Your task to perform on an android device: turn on data saver in the chrome app Image 0: 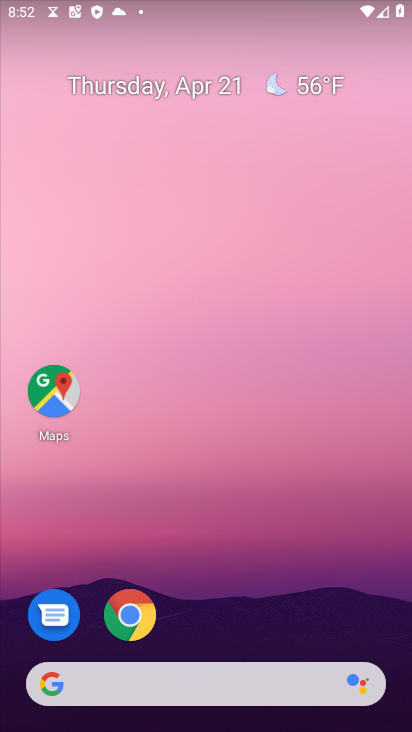
Step 0: click (133, 598)
Your task to perform on an android device: turn on data saver in the chrome app Image 1: 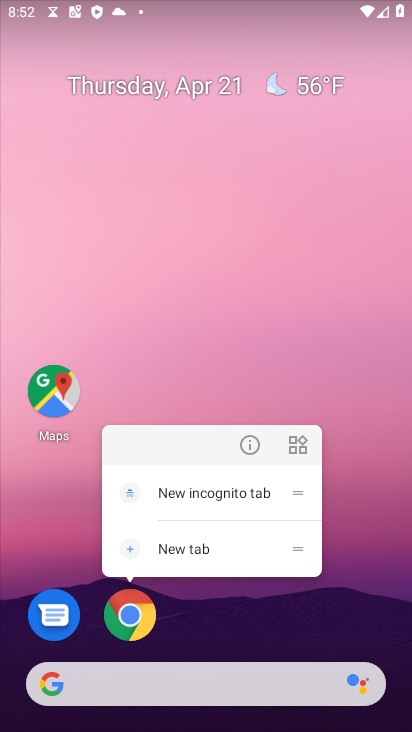
Step 1: click (121, 623)
Your task to perform on an android device: turn on data saver in the chrome app Image 2: 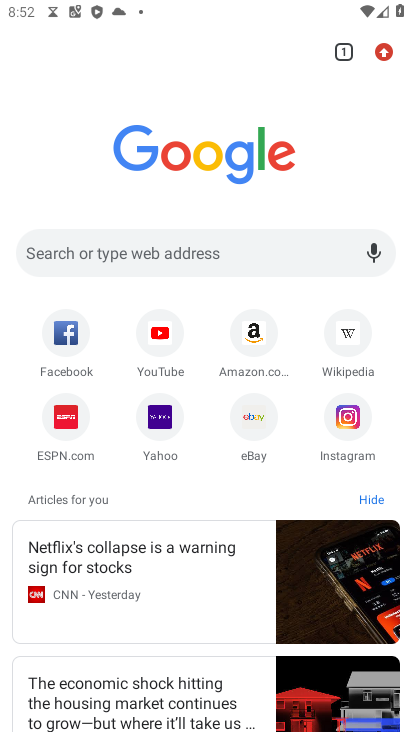
Step 2: drag from (153, 664) to (220, 209)
Your task to perform on an android device: turn on data saver in the chrome app Image 3: 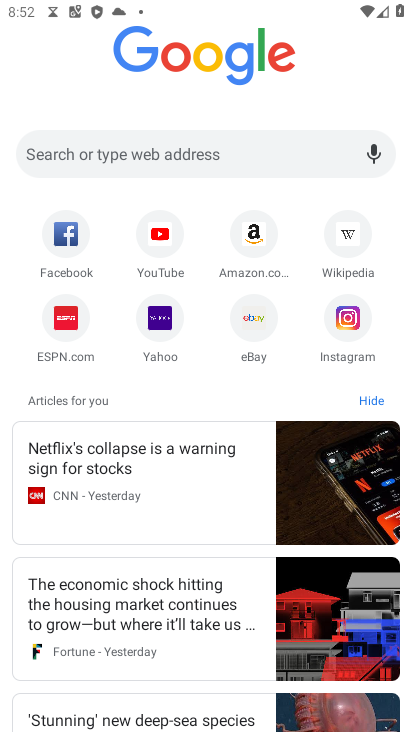
Step 3: drag from (173, 652) to (235, 342)
Your task to perform on an android device: turn on data saver in the chrome app Image 4: 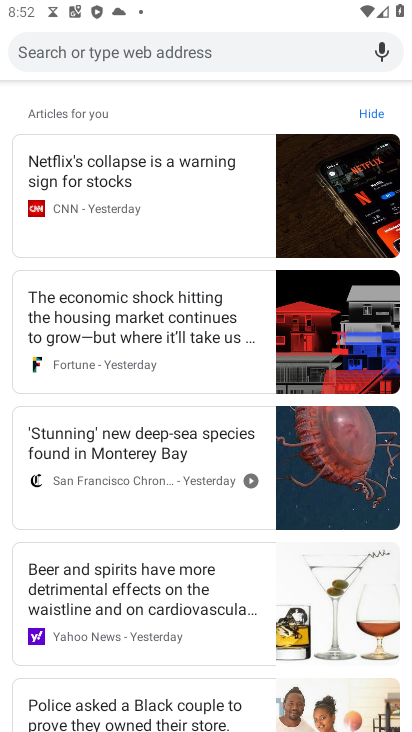
Step 4: drag from (88, 445) to (72, 621)
Your task to perform on an android device: turn on data saver in the chrome app Image 5: 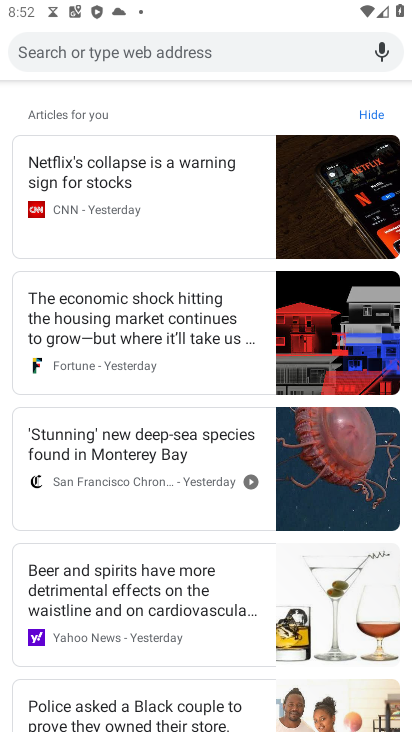
Step 5: drag from (190, 205) to (123, 637)
Your task to perform on an android device: turn on data saver in the chrome app Image 6: 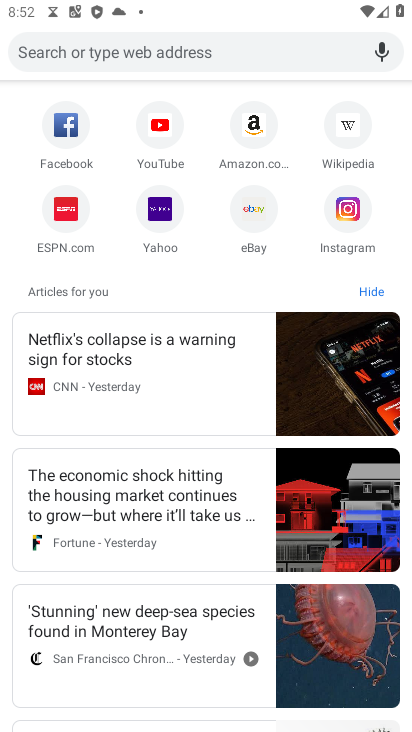
Step 6: drag from (222, 347) to (184, 625)
Your task to perform on an android device: turn on data saver in the chrome app Image 7: 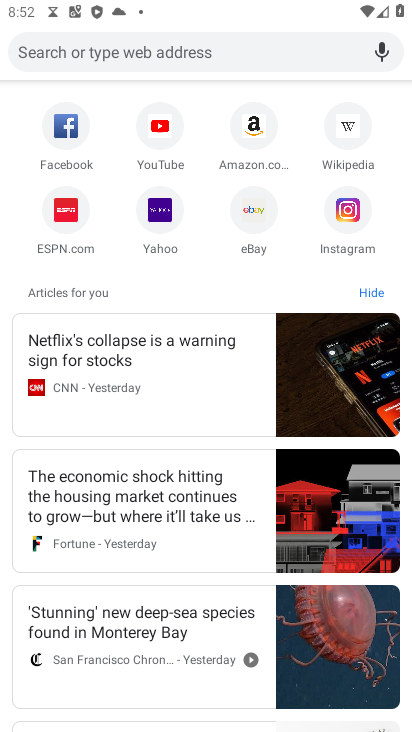
Step 7: drag from (298, 225) to (210, 594)
Your task to perform on an android device: turn on data saver in the chrome app Image 8: 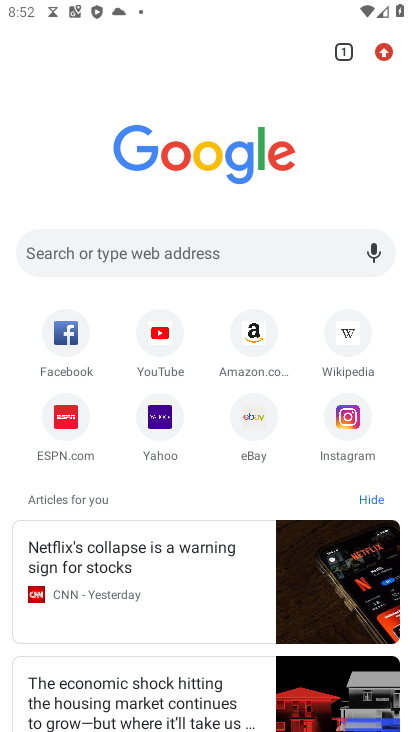
Step 8: click (387, 55)
Your task to perform on an android device: turn on data saver in the chrome app Image 9: 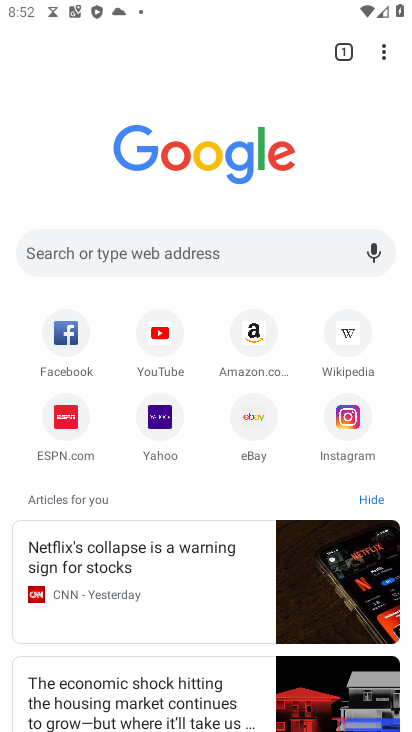
Step 9: click (385, 57)
Your task to perform on an android device: turn on data saver in the chrome app Image 10: 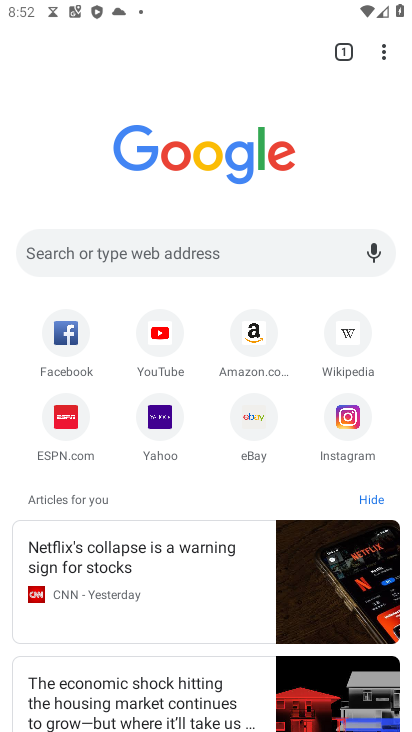
Step 10: click (386, 58)
Your task to perform on an android device: turn on data saver in the chrome app Image 11: 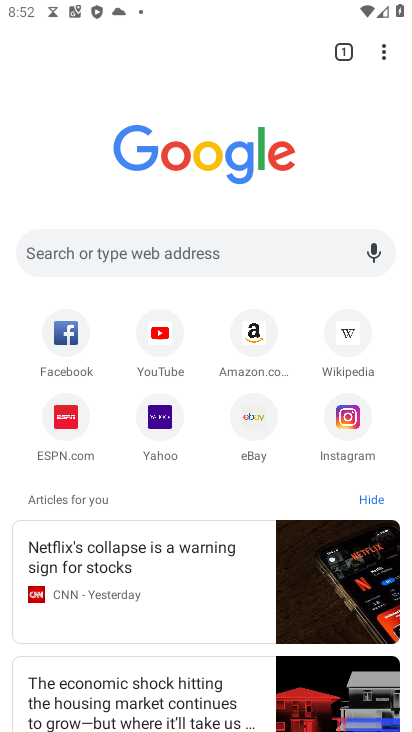
Step 11: click (380, 57)
Your task to perform on an android device: turn on data saver in the chrome app Image 12: 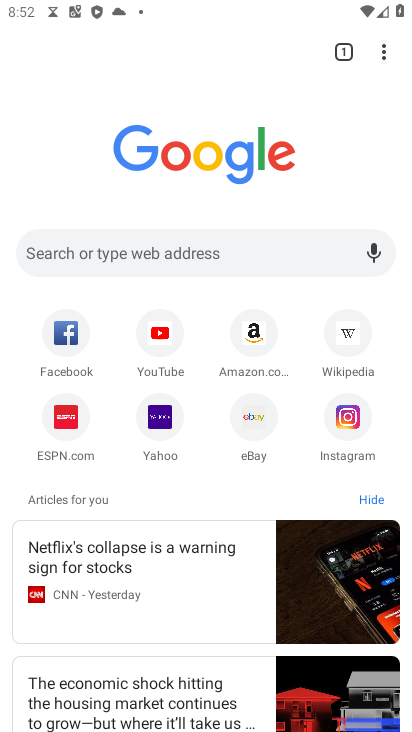
Step 12: click (383, 55)
Your task to perform on an android device: turn on data saver in the chrome app Image 13: 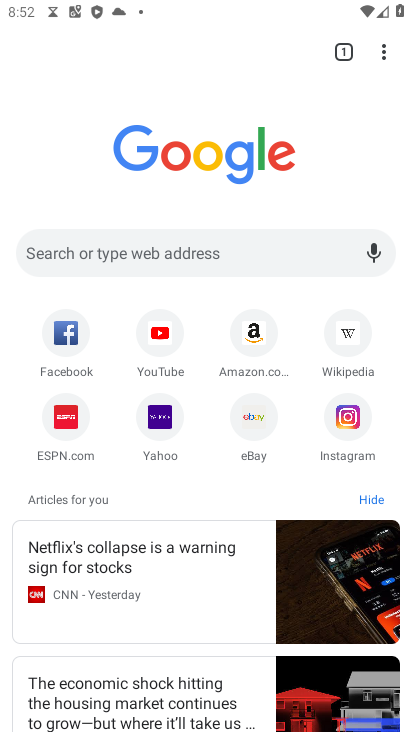
Step 13: click (386, 53)
Your task to perform on an android device: turn on data saver in the chrome app Image 14: 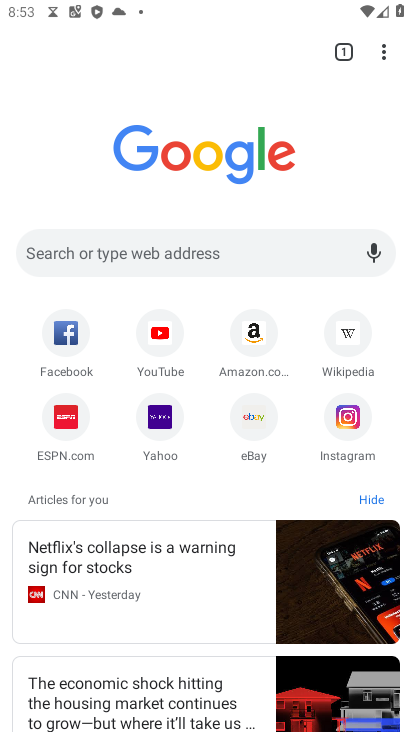
Step 14: click (384, 55)
Your task to perform on an android device: turn on data saver in the chrome app Image 15: 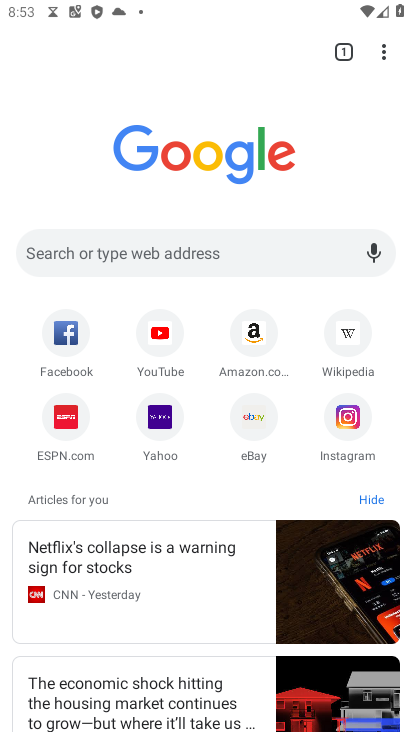
Step 15: click (384, 52)
Your task to perform on an android device: turn on data saver in the chrome app Image 16: 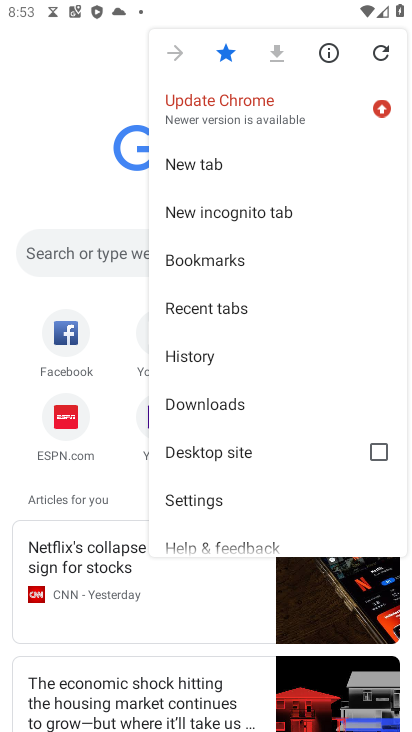
Step 16: drag from (255, 494) to (268, 211)
Your task to perform on an android device: turn on data saver in the chrome app Image 17: 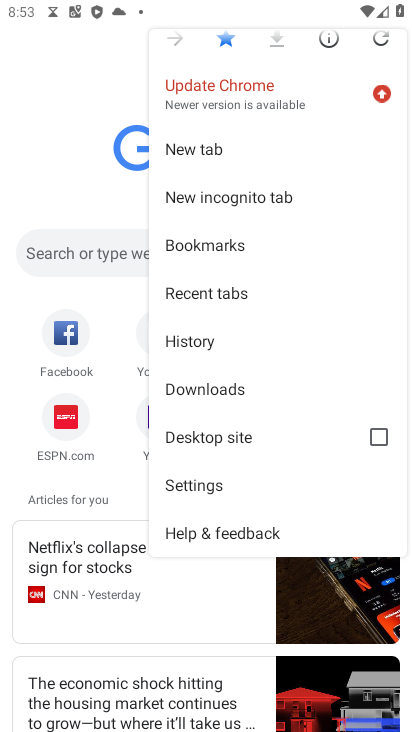
Step 17: click (201, 482)
Your task to perform on an android device: turn on data saver in the chrome app Image 18: 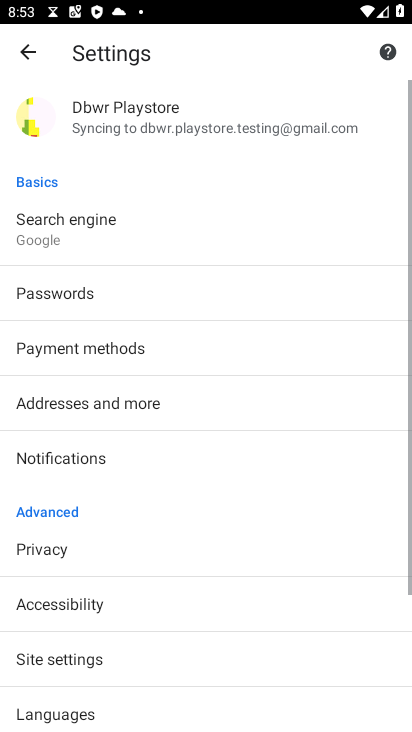
Step 18: drag from (202, 612) to (179, 315)
Your task to perform on an android device: turn on data saver in the chrome app Image 19: 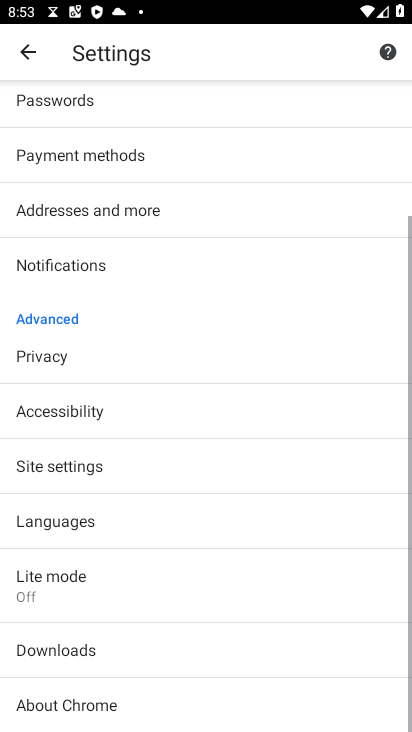
Step 19: click (83, 605)
Your task to perform on an android device: turn on data saver in the chrome app Image 20: 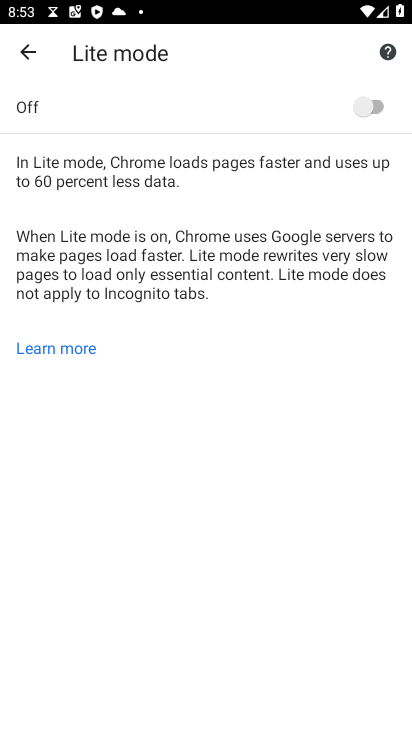
Step 20: click (372, 105)
Your task to perform on an android device: turn on data saver in the chrome app Image 21: 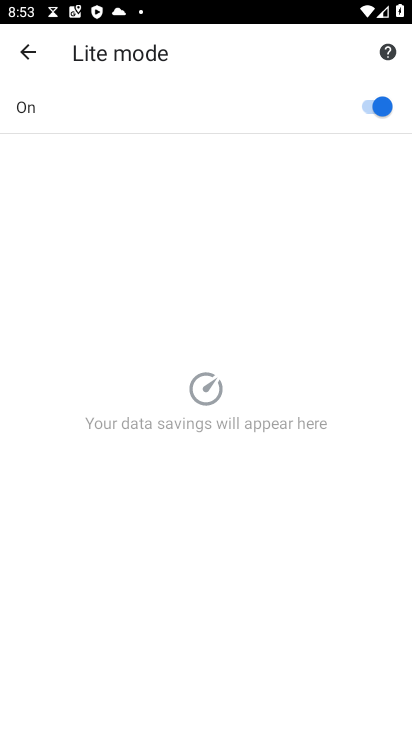
Step 21: task complete